Your task to perform on an android device: delete location history Image 0: 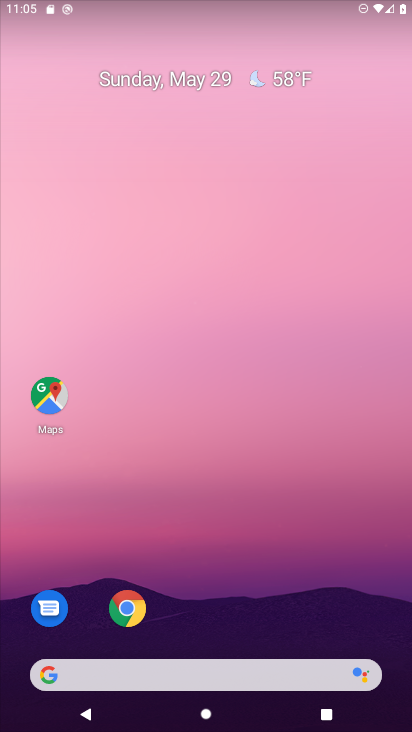
Step 0: drag from (257, 664) to (235, 192)
Your task to perform on an android device: delete location history Image 1: 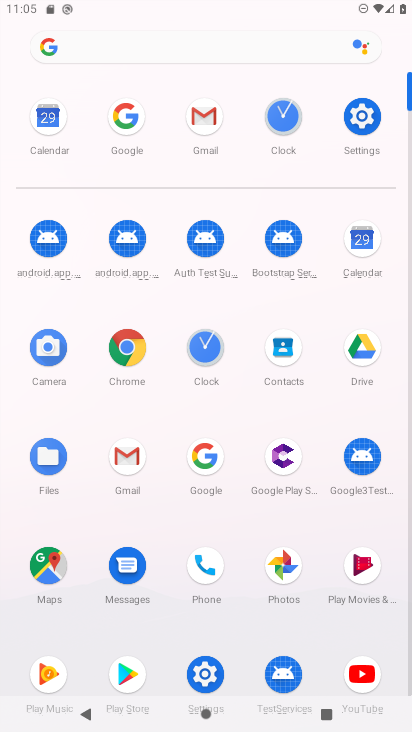
Step 1: click (361, 114)
Your task to perform on an android device: delete location history Image 2: 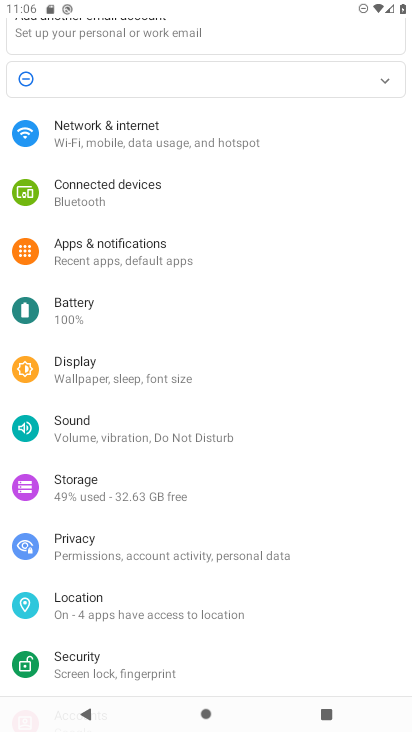
Step 2: click (138, 617)
Your task to perform on an android device: delete location history Image 3: 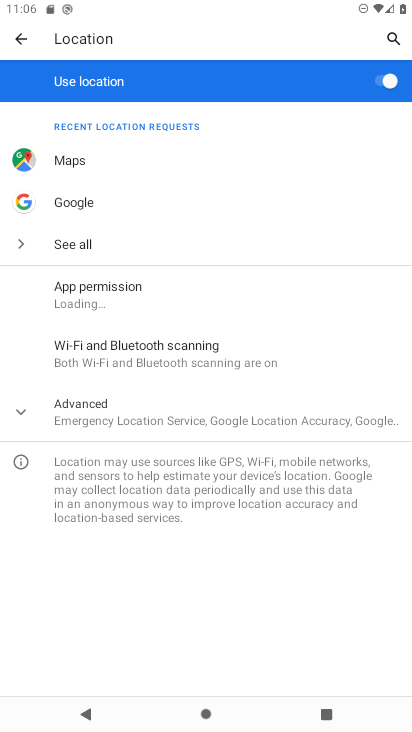
Step 3: click (148, 424)
Your task to perform on an android device: delete location history Image 4: 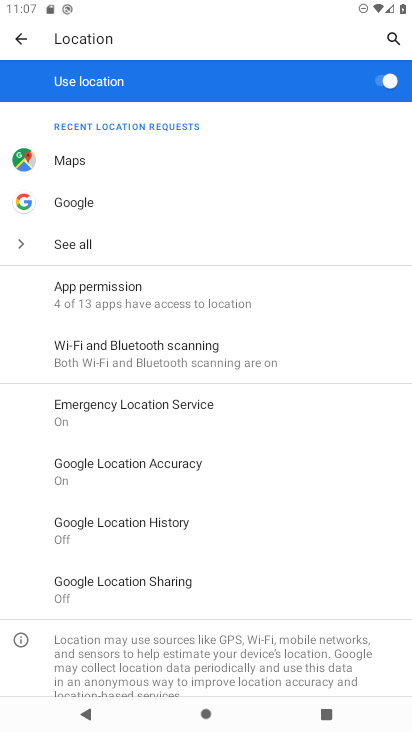
Step 4: click (152, 533)
Your task to perform on an android device: delete location history Image 5: 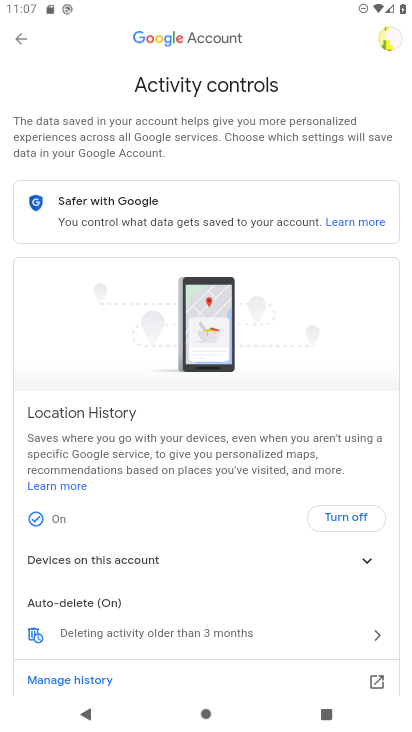
Step 5: click (110, 635)
Your task to perform on an android device: delete location history Image 6: 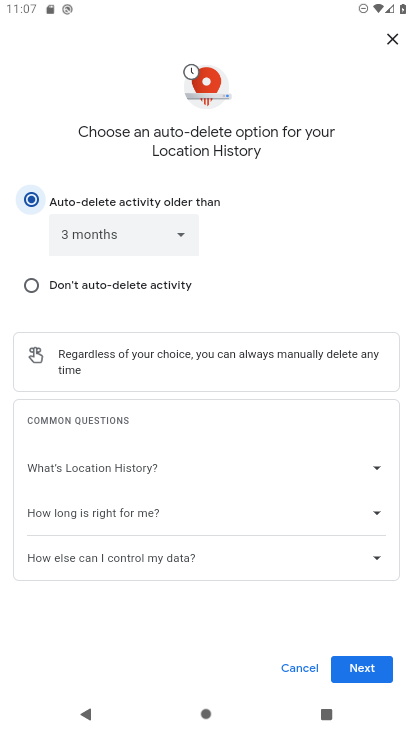
Step 6: click (371, 674)
Your task to perform on an android device: delete location history Image 7: 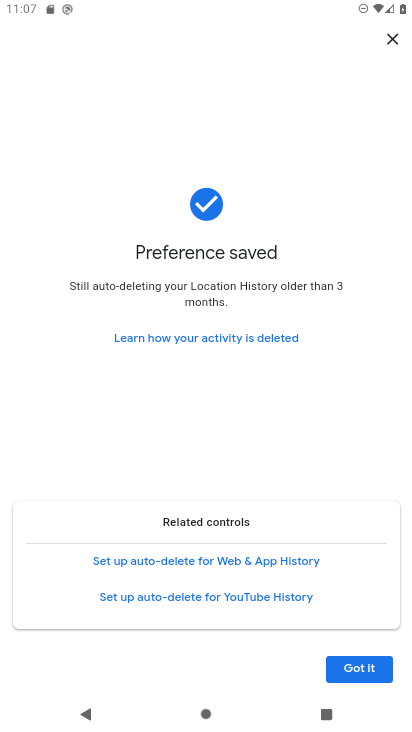
Step 7: click (371, 674)
Your task to perform on an android device: delete location history Image 8: 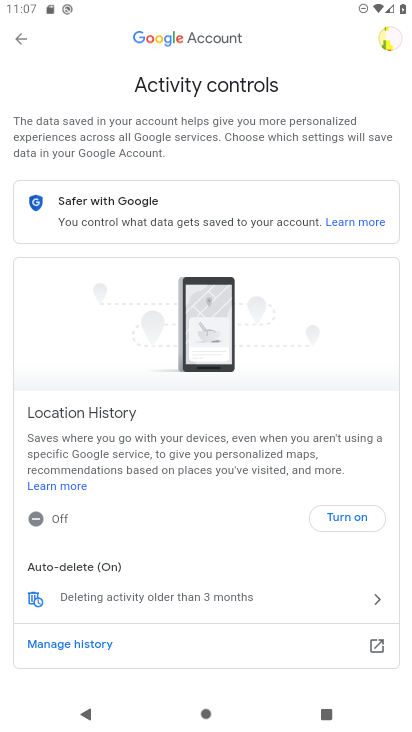
Step 8: task complete